Your task to perform on an android device: turn pop-ups on in chrome Image 0: 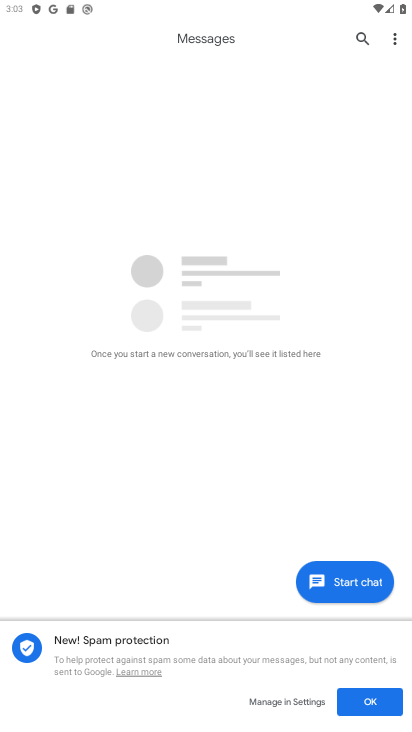
Step 0: press home button
Your task to perform on an android device: turn pop-ups on in chrome Image 1: 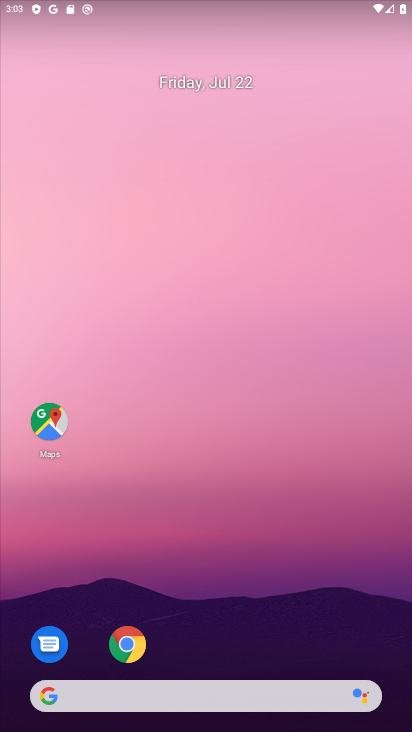
Step 1: task complete